Your task to perform on an android device: Go to sound settings Image 0: 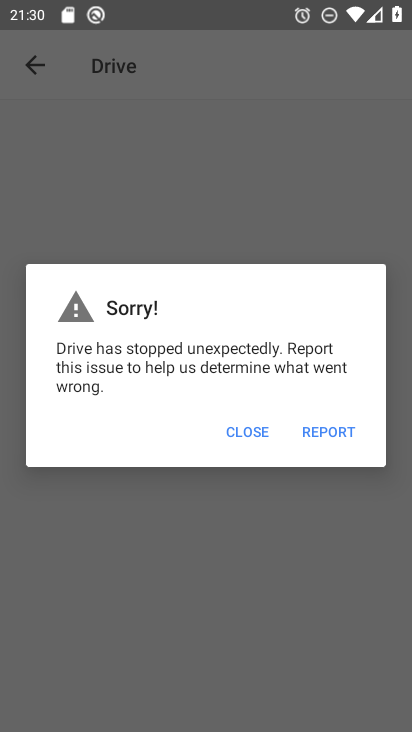
Step 0: press home button
Your task to perform on an android device: Go to sound settings Image 1: 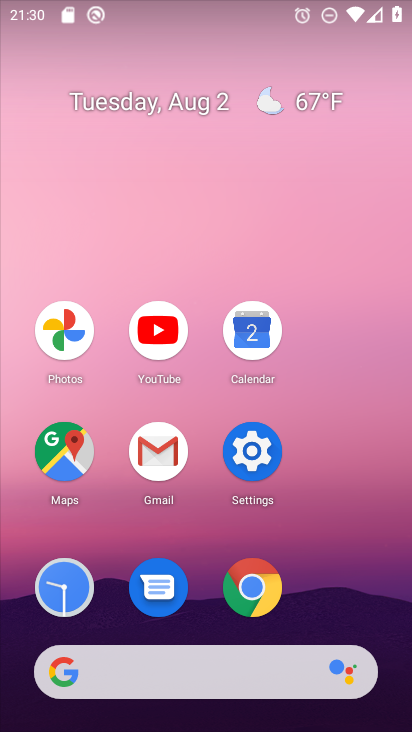
Step 1: click (254, 459)
Your task to perform on an android device: Go to sound settings Image 2: 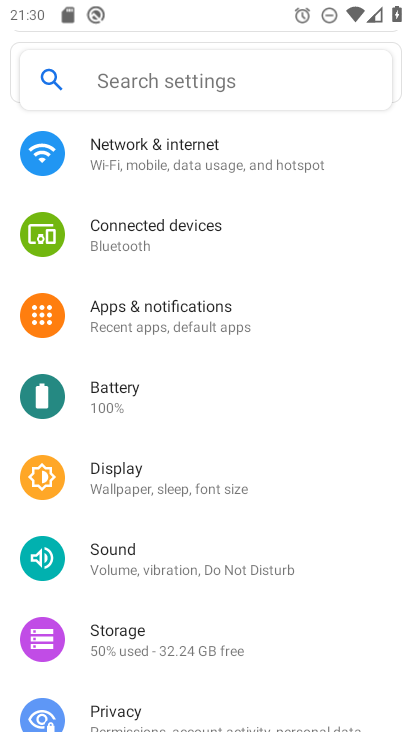
Step 2: click (115, 555)
Your task to perform on an android device: Go to sound settings Image 3: 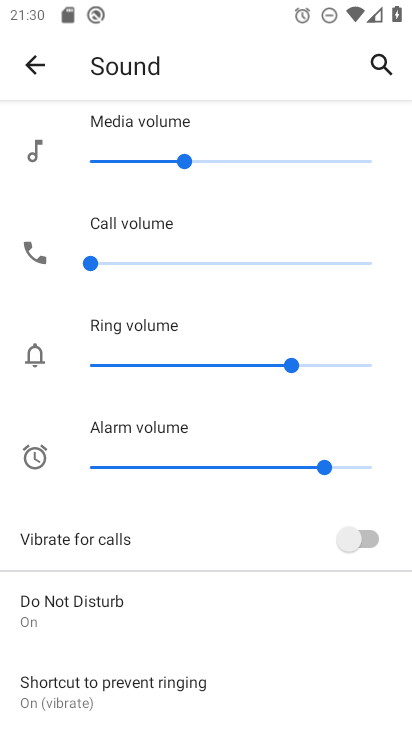
Step 3: task complete